Your task to perform on an android device: toggle javascript in the chrome app Image 0: 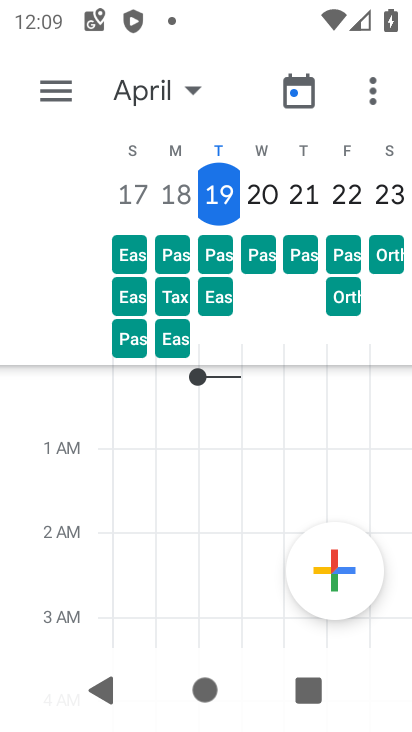
Step 0: press home button
Your task to perform on an android device: toggle javascript in the chrome app Image 1: 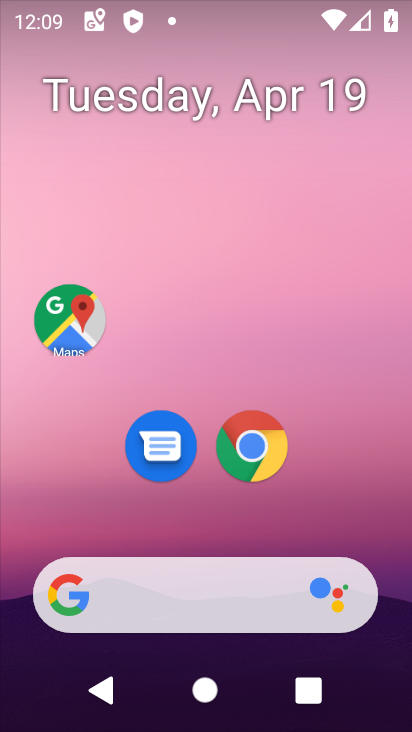
Step 1: click (269, 449)
Your task to perform on an android device: toggle javascript in the chrome app Image 2: 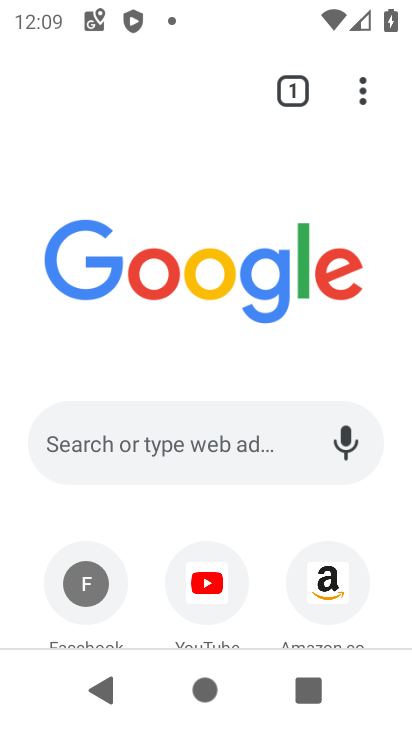
Step 2: click (363, 91)
Your task to perform on an android device: toggle javascript in the chrome app Image 3: 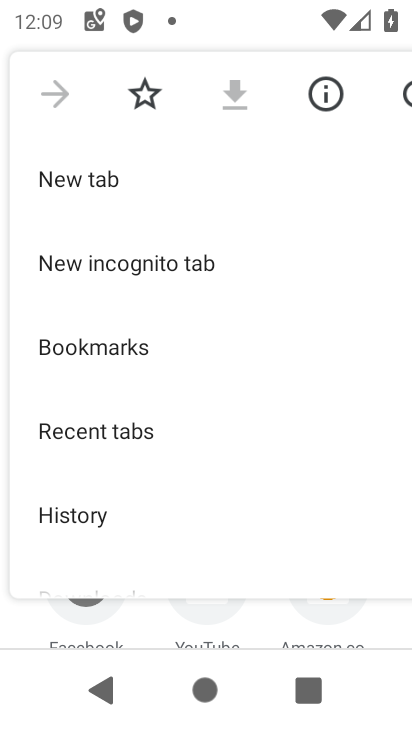
Step 3: drag from (226, 514) to (241, 178)
Your task to perform on an android device: toggle javascript in the chrome app Image 4: 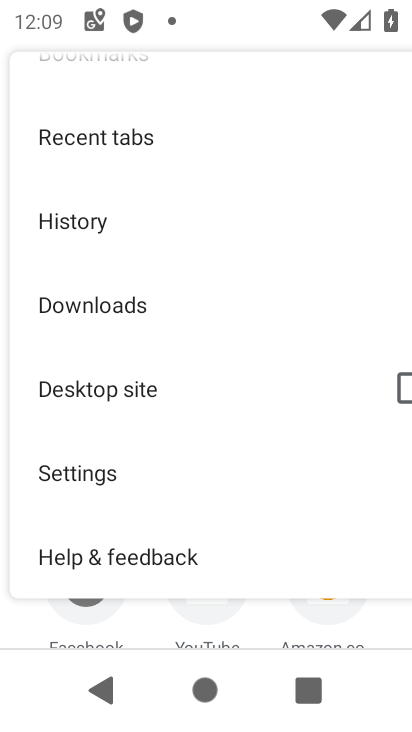
Step 4: click (143, 469)
Your task to perform on an android device: toggle javascript in the chrome app Image 5: 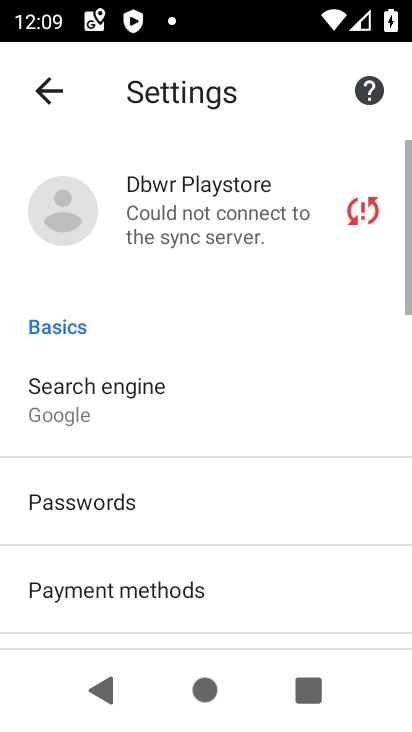
Step 5: drag from (168, 555) to (220, 206)
Your task to perform on an android device: toggle javascript in the chrome app Image 6: 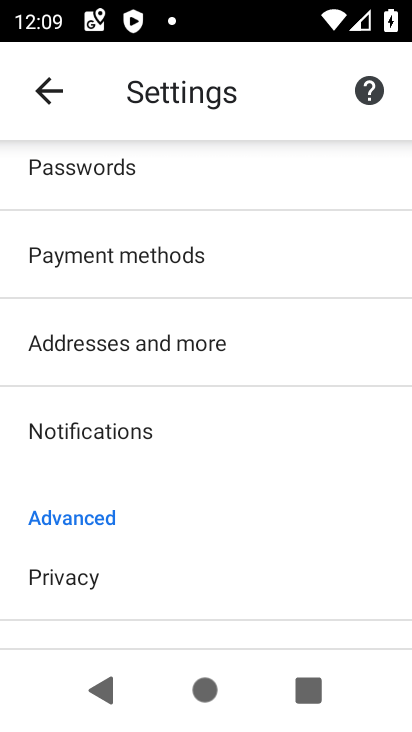
Step 6: drag from (201, 550) to (229, 294)
Your task to perform on an android device: toggle javascript in the chrome app Image 7: 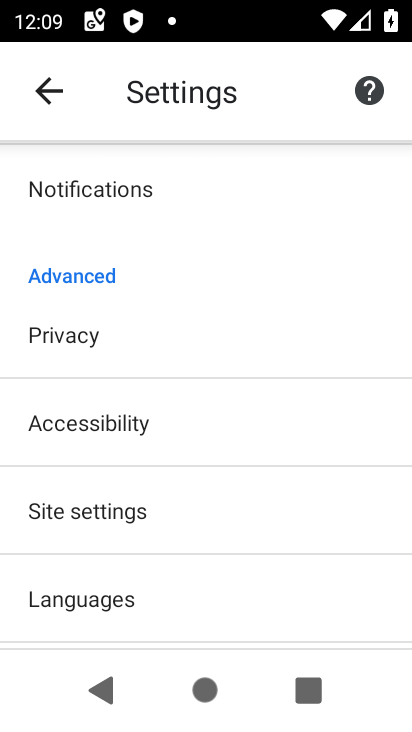
Step 7: click (147, 504)
Your task to perform on an android device: toggle javascript in the chrome app Image 8: 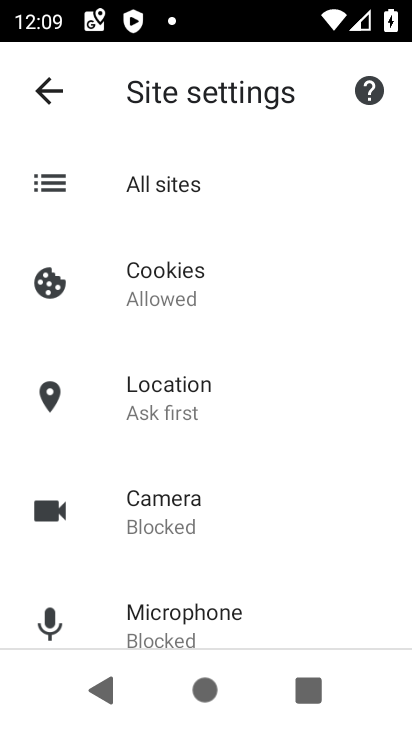
Step 8: drag from (219, 549) to (263, 315)
Your task to perform on an android device: toggle javascript in the chrome app Image 9: 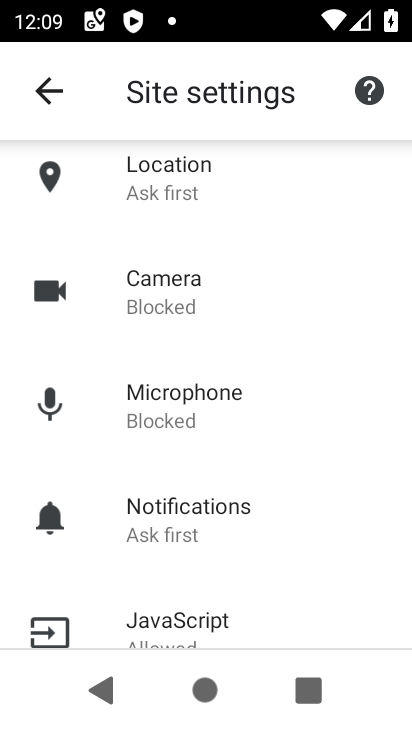
Step 9: drag from (261, 552) to (244, 306)
Your task to perform on an android device: toggle javascript in the chrome app Image 10: 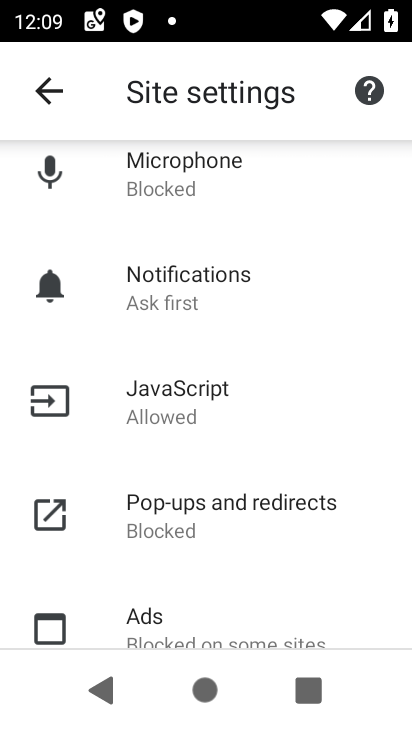
Step 10: click (229, 392)
Your task to perform on an android device: toggle javascript in the chrome app Image 11: 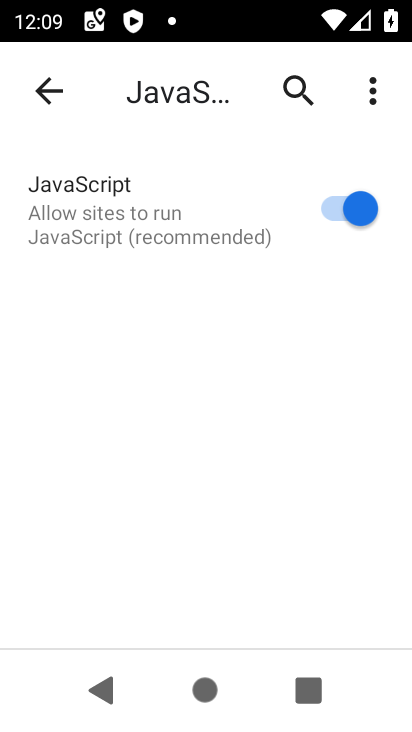
Step 11: click (350, 196)
Your task to perform on an android device: toggle javascript in the chrome app Image 12: 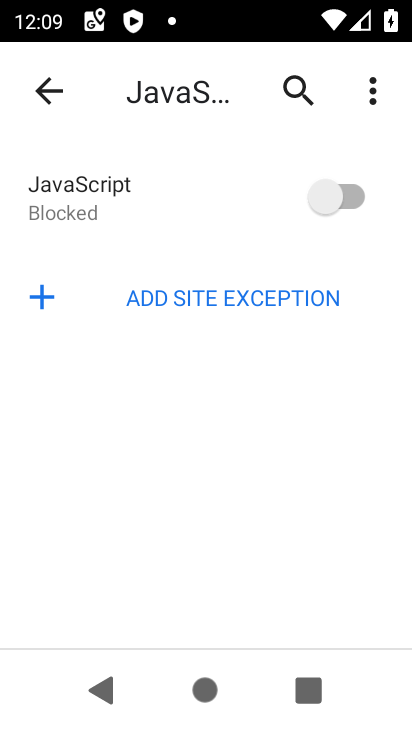
Step 12: task complete